Your task to perform on an android device: check data usage Image 0: 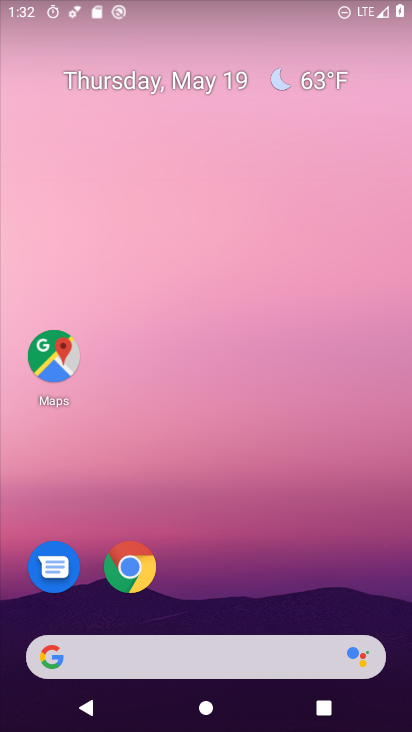
Step 0: press home button
Your task to perform on an android device: check data usage Image 1: 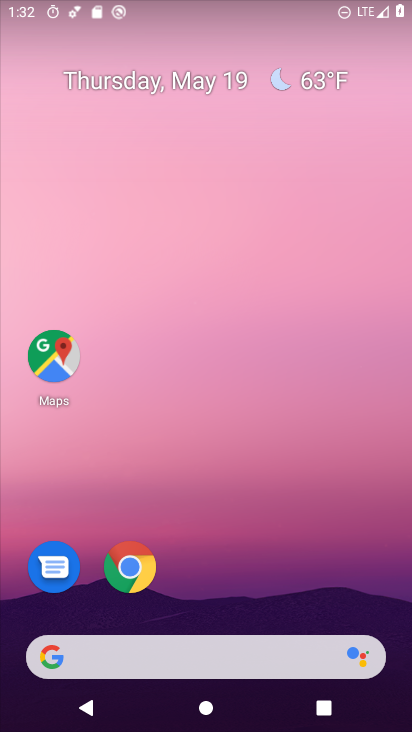
Step 1: drag from (183, 636) to (245, 69)
Your task to perform on an android device: check data usage Image 2: 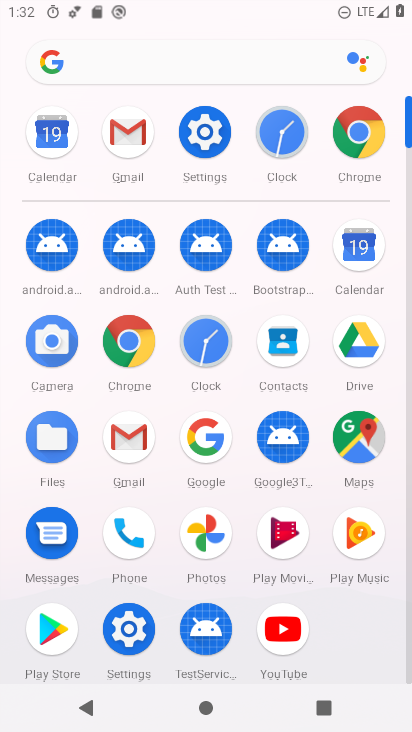
Step 2: click (215, 133)
Your task to perform on an android device: check data usage Image 3: 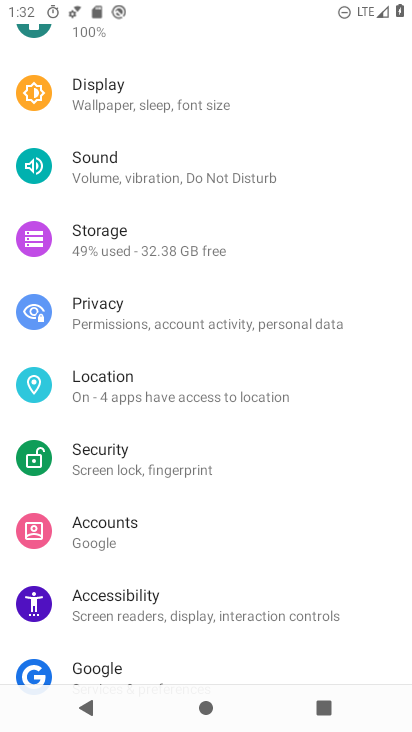
Step 3: drag from (329, 116) to (297, 537)
Your task to perform on an android device: check data usage Image 4: 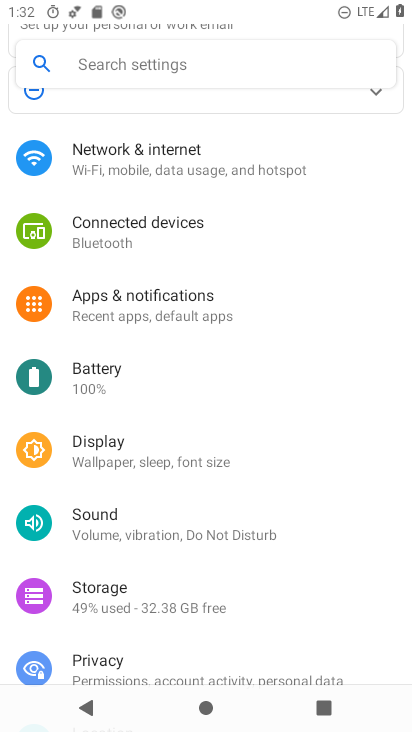
Step 4: click (179, 156)
Your task to perform on an android device: check data usage Image 5: 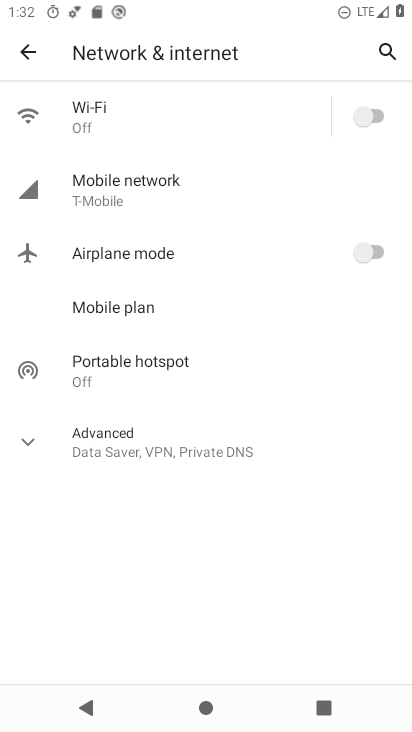
Step 5: click (96, 113)
Your task to perform on an android device: check data usage Image 6: 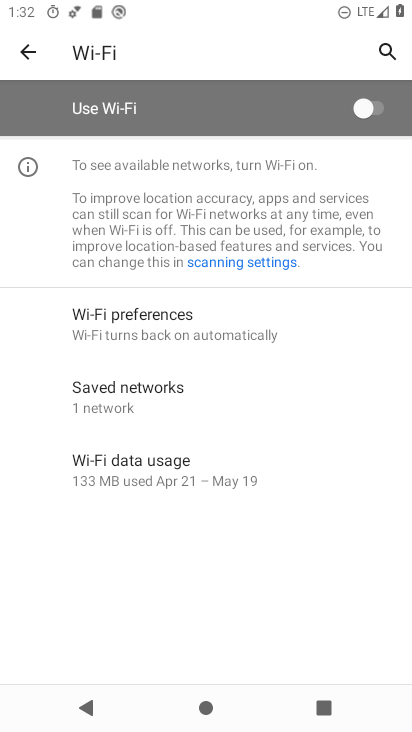
Step 6: click (157, 462)
Your task to perform on an android device: check data usage Image 7: 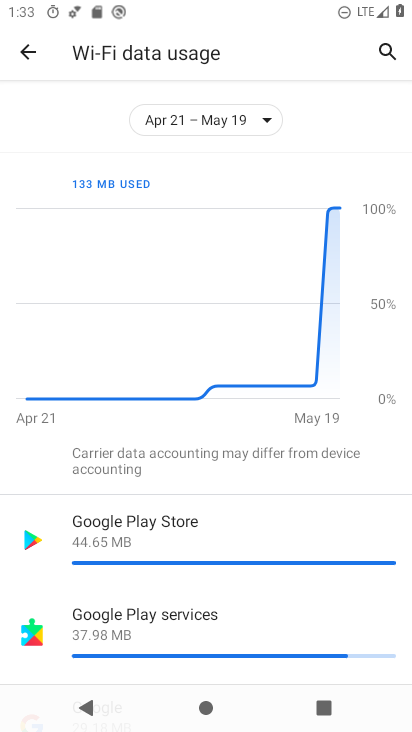
Step 7: task complete